Your task to perform on an android device: Open Android settings Image 0: 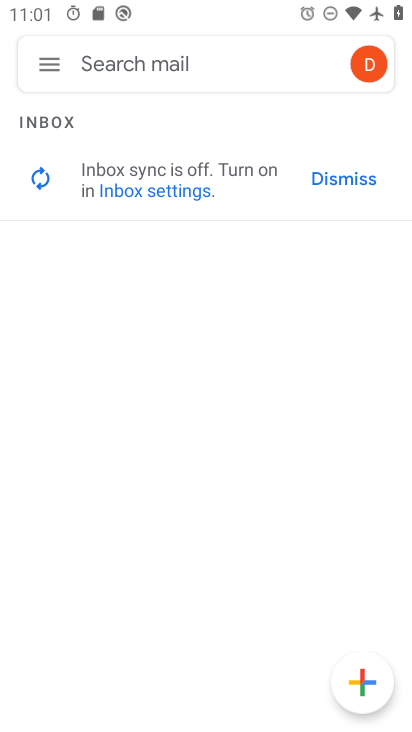
Step 0: press home button
Your task to perform on an android device: Open Android settings Image 1: 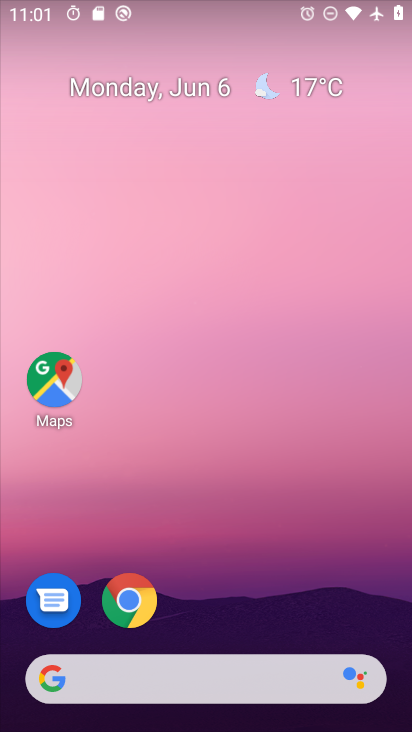
Step 1: drag from (323, 559) to (219, 25)
Your task to perform on an android device: Open Android settings Image 2: 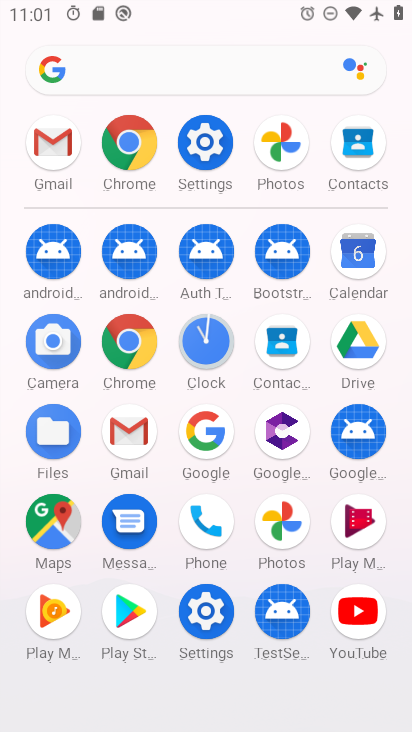
Step 2: click (224, 135)
Your task to perform on an android device: Open Android settings Image 3: 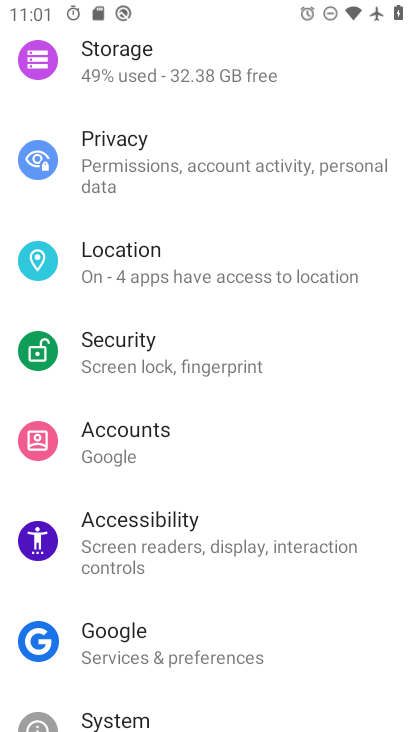
Step 3: drag from (235, 613) to (227, 96)
Your task to perform on an android device: Open Android settings Image 4: 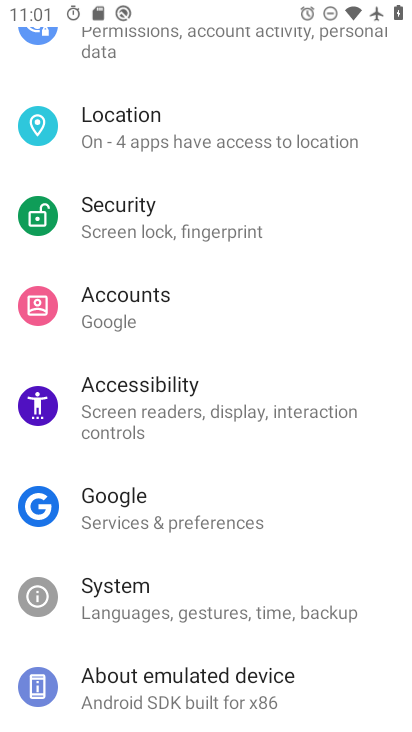
Step 4: click (232, 664)
Your task to perform on an android device: Open Android settings Image 5: 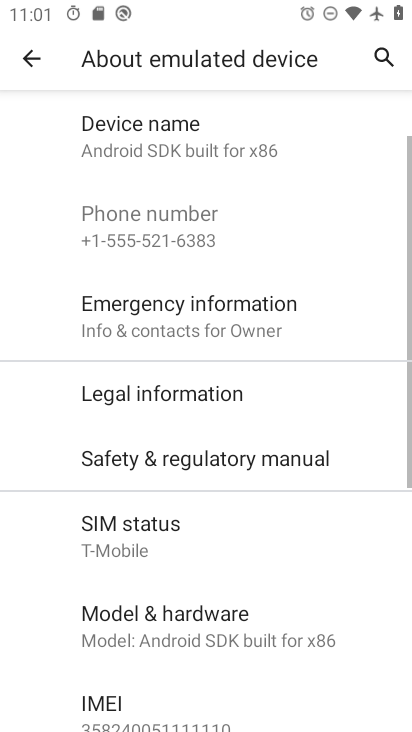
Step 5: drag from (253, 639) to (230, 153)
Your task to perform on an android device: Open Android settings Image 6: 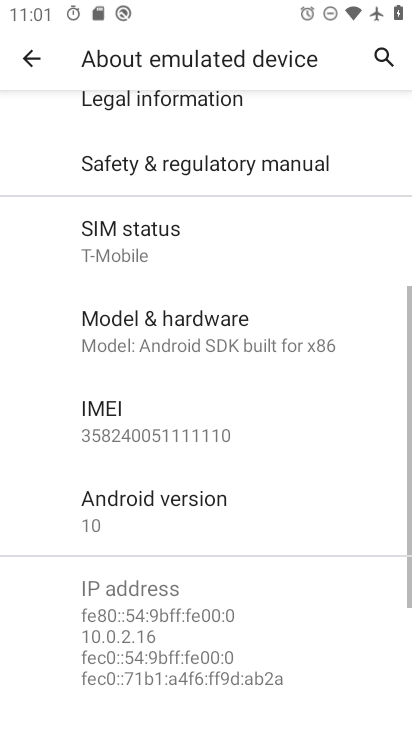
Step 6: click (210, 512)
Your task to perform on an android device: Open Android settings Image 7: 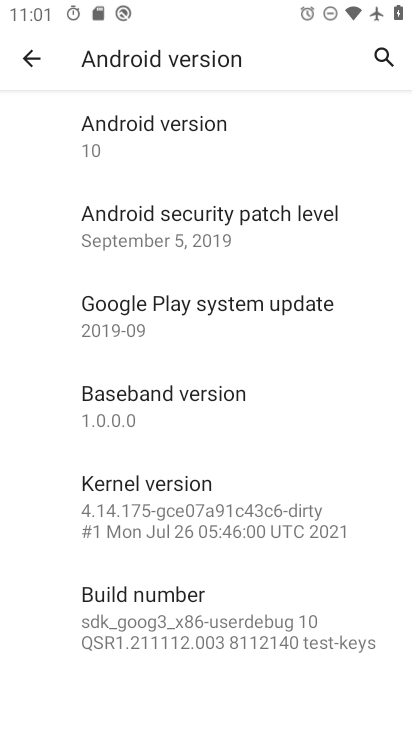
Step 7: task complete